Your task to perform on an android device: turn on the 12-hour format for clock Image 0: 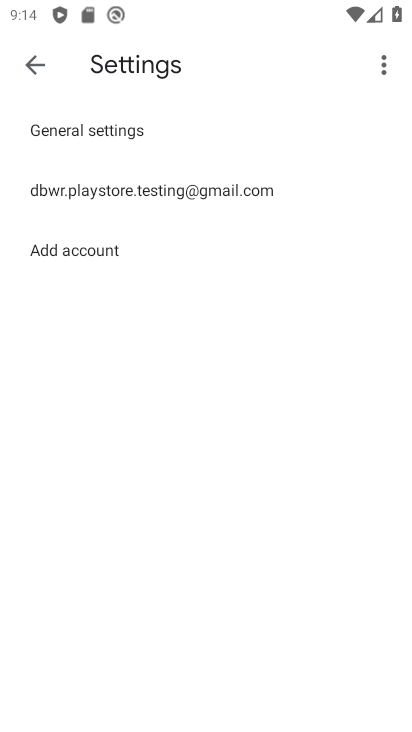
Step 0: press home button
Your task to perform on an android device: turn on the 12-hour format for clock Image 1: 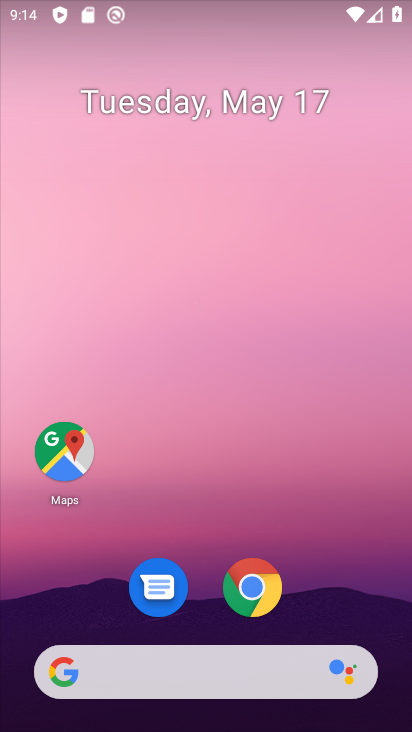
Step 1: drag from (219, 602) to (228, 190)
Your task to perform on an android device: turn on the 12-hour format for clock Image 2: 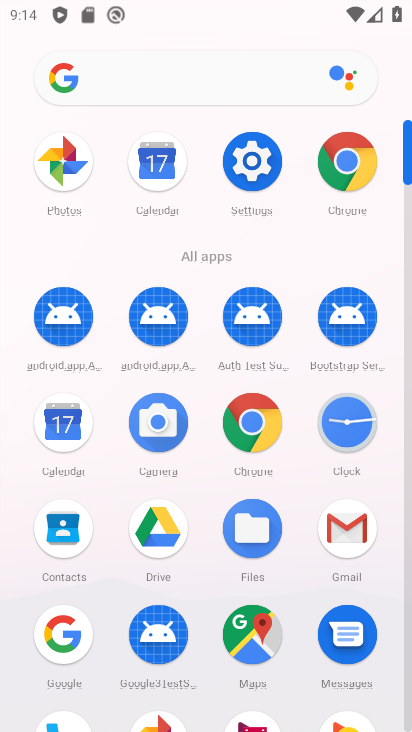
Step 2: click (333, 426)
Your task to perform on an android device: turn on the 12-hour format for clock Image 3: 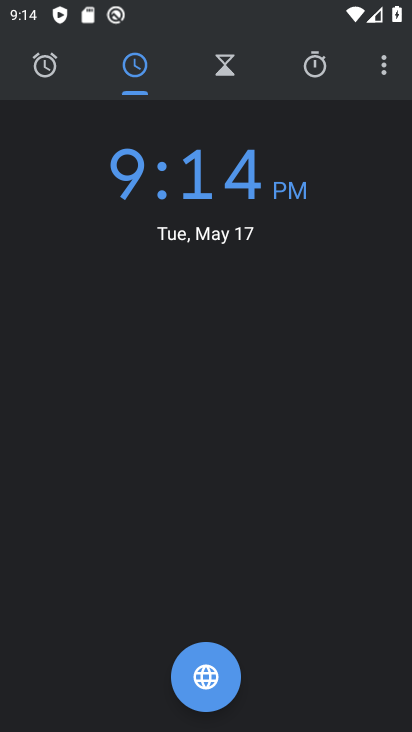
Step 3: click (387, 58)
Your task to perform on an android device: turn on the 12-hour format for clock Image 4: 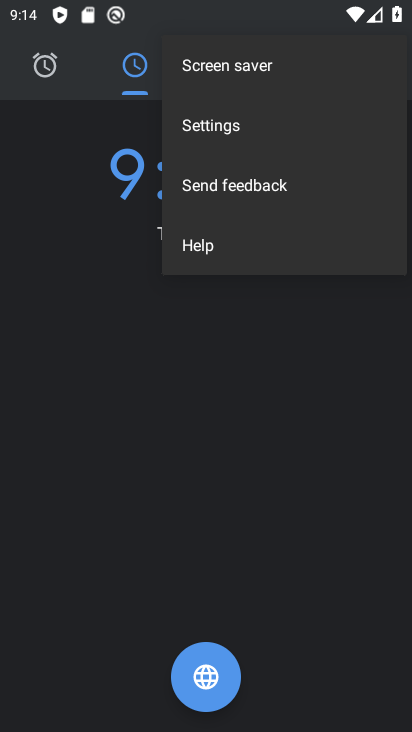
Step 4: click (280, 137)
Your task to perform on an android device: turn on the 12-hour format for clock Image 5: 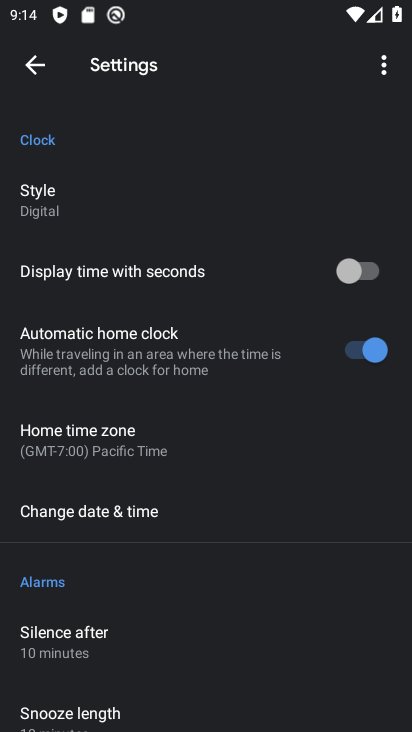
Step 5: click (124, 522)
Your task to perform on an android device: turn on the 12-hour format for clock Image 6: 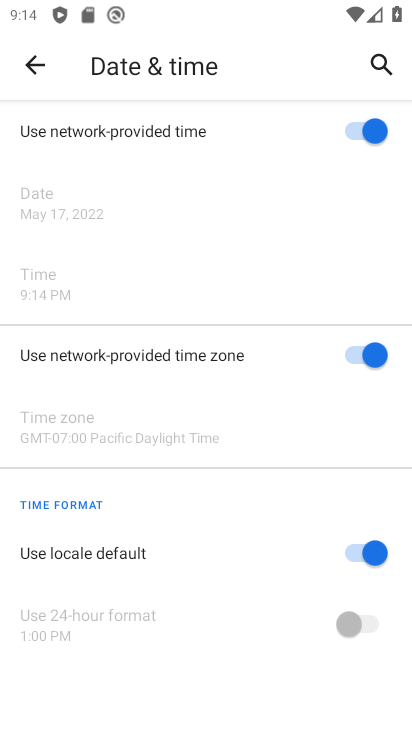
Step 6: task complete